Your task to perform on an android device: move a message to another label in the gmail app Image 0: 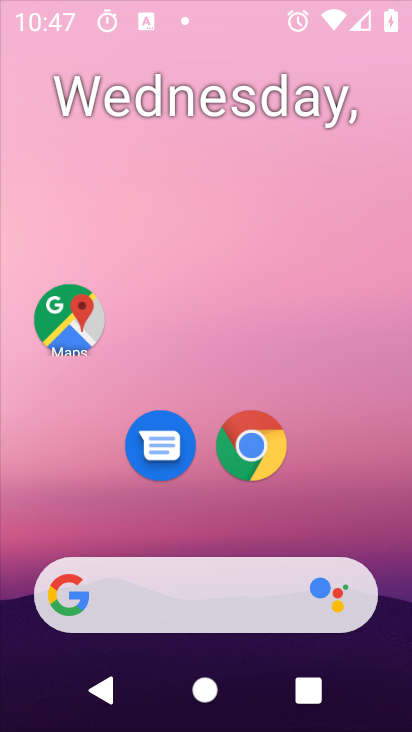
Step 0: drag from (394, 274) to (408, 236)
Your task to perform on an android device: move a message to another label in the gmail app Image 1: 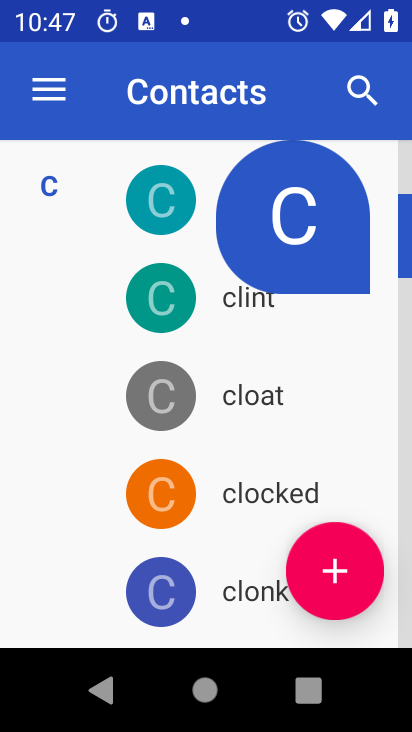
Step 1: press home button
Your task to perform on an android device: move a message to another label in the gmail app Image 2: 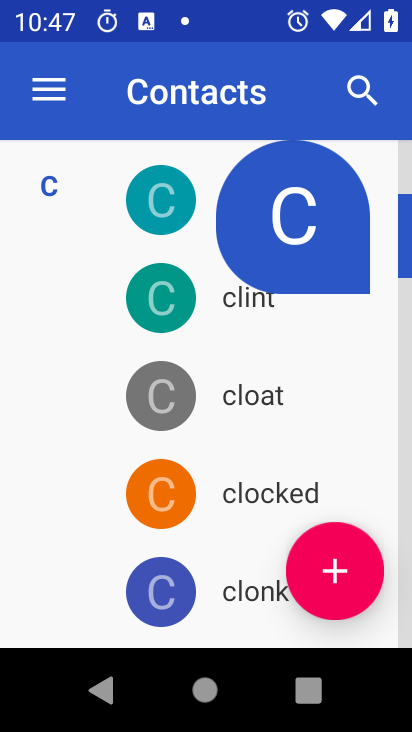
Step 2: drag from (408, 236) to (411, 543)
Your task to perform on an android device: move a message to another label in the gmail app Image 3: 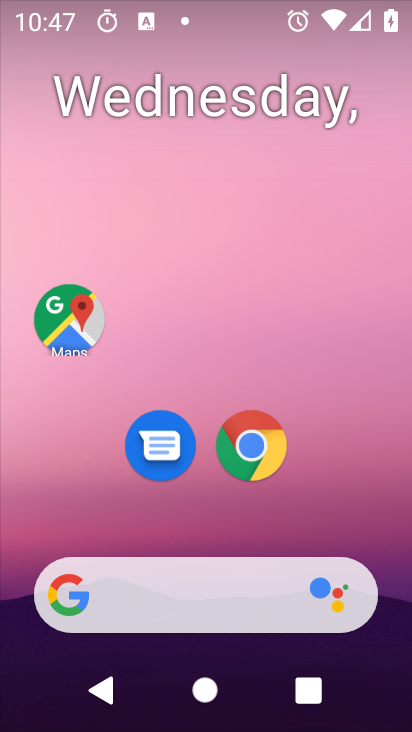
Step 3: drag from (385, 518) to (325, 64)
Your task to perform on an android device: move a message to another label in the gmail app Image 4: 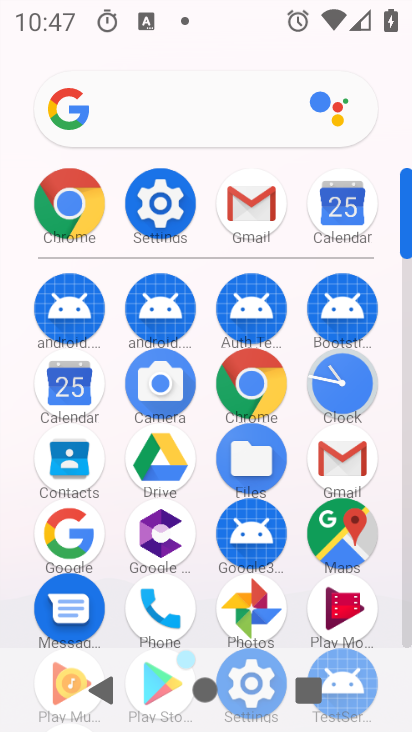
Step 4: click (257, 214)
Your task to perform on an android device: move a message to another label in the gmail app Image 5: 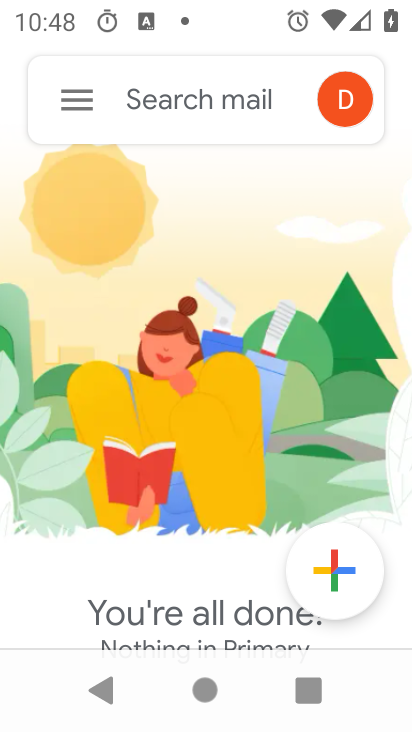
Step 5: click (74, 102)
Your task to perform on an android device: move a message to another label in the gmail app Image 6: 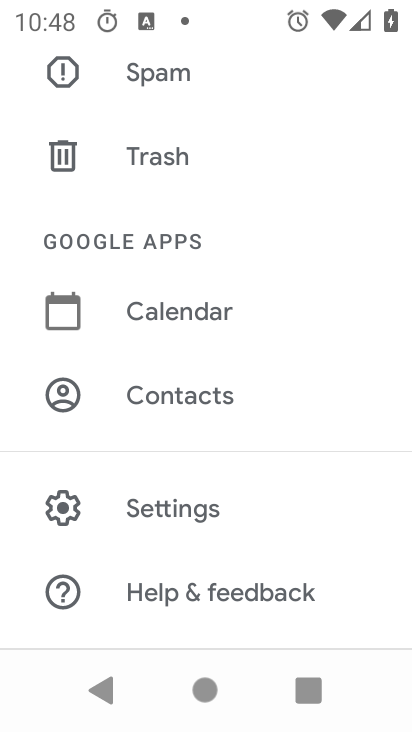
Step 6: drag from (256, 211) to (301, 656)
Your task to perform on an android device: move a message to another label in the gmail app Image 7: 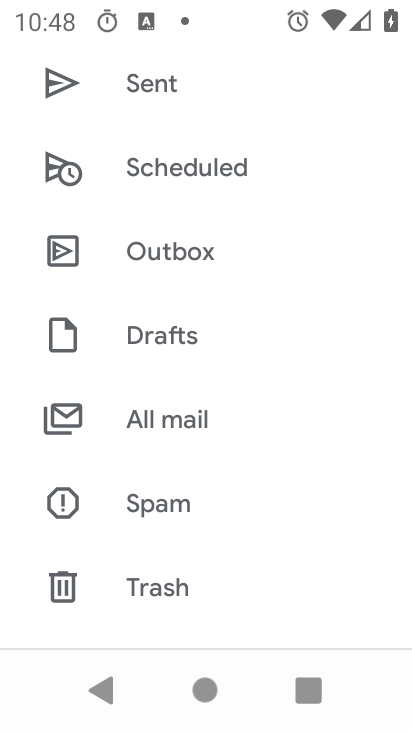
Step 7: drag from (353, 215) to (368, 630)
Your task to perform on an android device: move a message to another label in the gmail app Image 8: 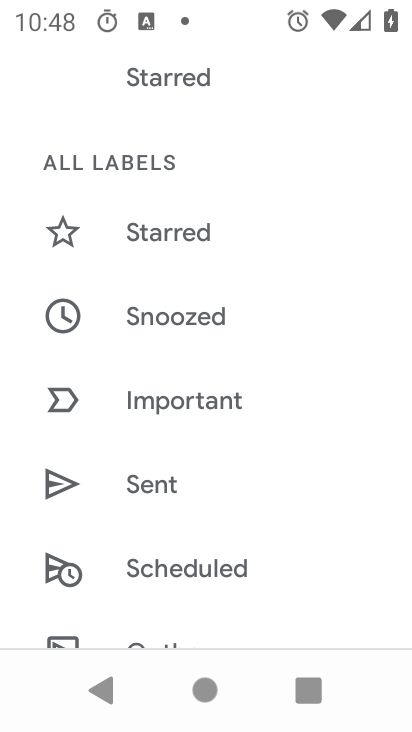
Step 8: drag from (237, 250) to (273, 629)
Your task to perform on an android device: move a message to another label in the gmail app Image 9: 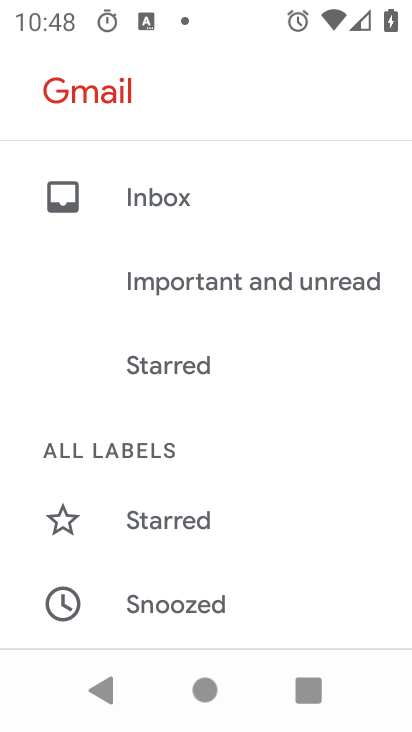
Step 9: click (169, 217)
Your task to perform on an android device: move a message to another label in the gmail app Image 10: 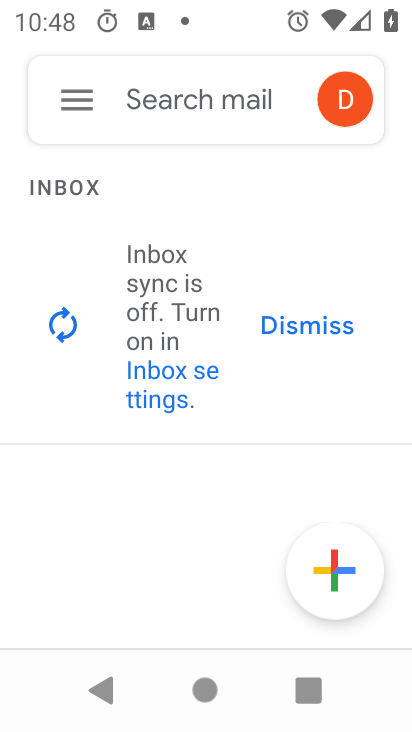
Step 10: click (76, 338)
Your task to perform on an android device: move a message to another label in the gmail app Image 11: 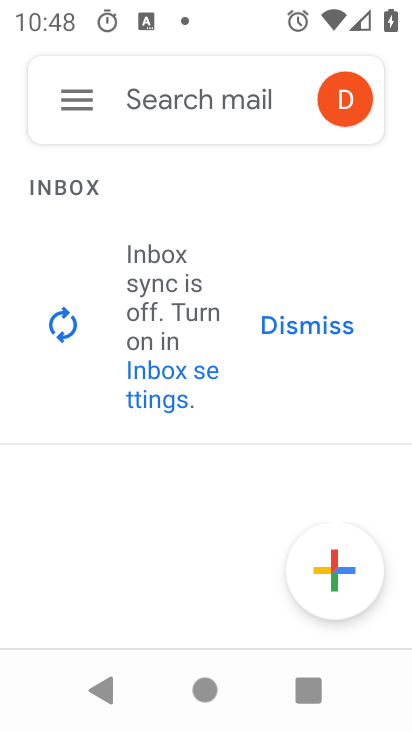
Step 11: click (76, 338)
Your task to perform on an android device: move a message to another label in the gmail app Image 12: 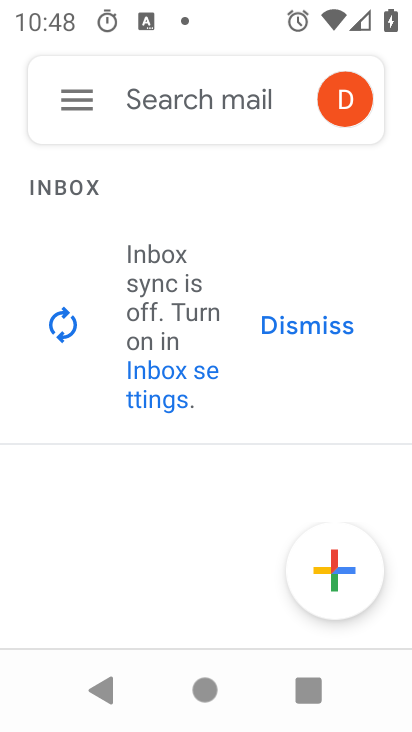
Step 12: click (68, 328)
Your task to perform on an android device: move a message to another label in the gmail app Image 13: 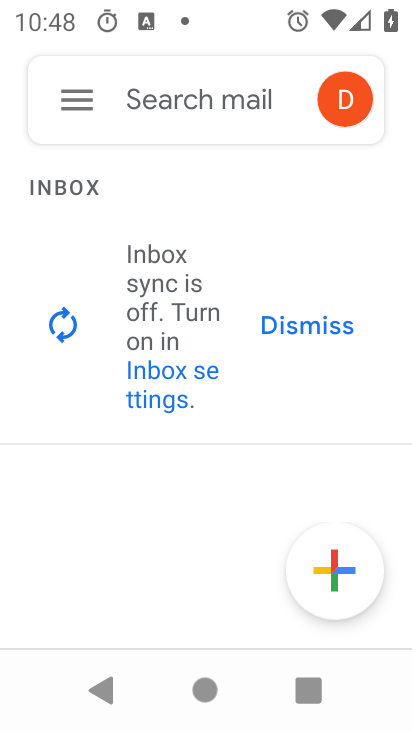
Step 13: click (68, 328)
Your task to perform on an android device: move a message to another label in the gmail app Image 14: 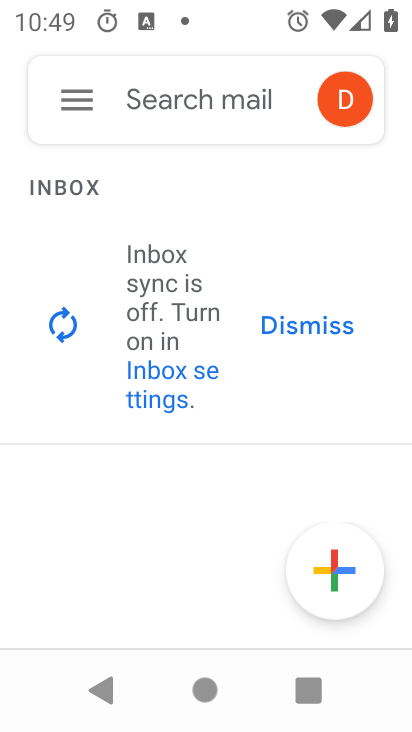
Step 14: click (68, 328)
Your task to perform on an android device: move a message to another label in the gmail app Image 15: 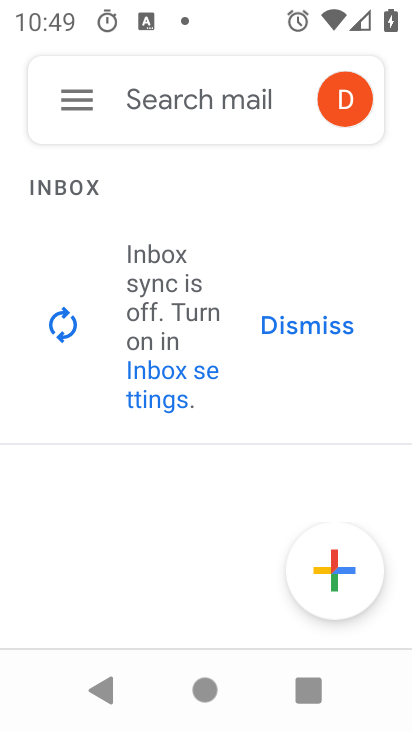
Step 15: click (68, 328)
Your task to perform on an android device: move a message to another label in the gmail app Image 16: 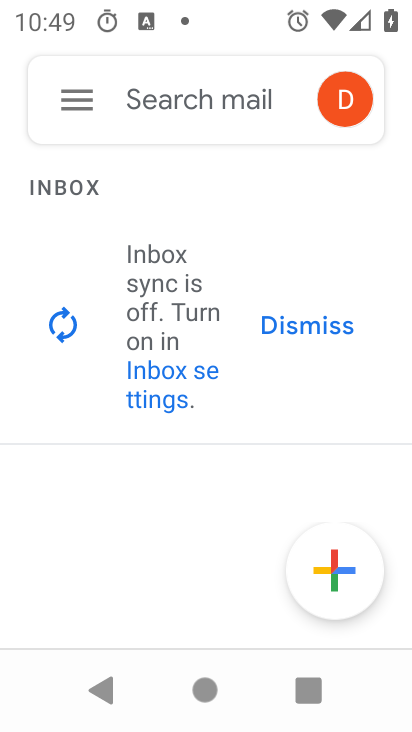
Step 16: task complete